Your task to perform on an android device: turn on showing notifications on the lock screen Image 0: 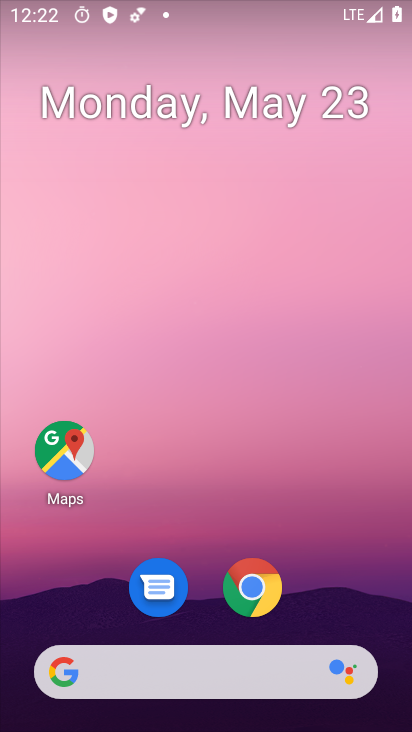
Step 0: drag from (218, 603) to (226, 118)
Your task to perform on an android device: turn on showing notifications on the lock screen Image 1: 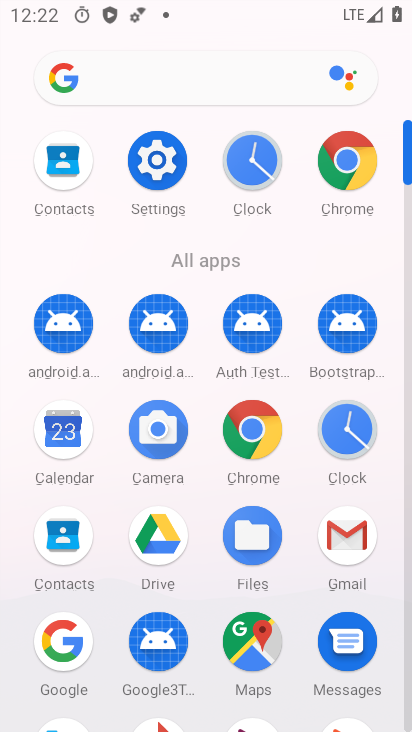
Step 1: click (160, 162)
Your task to perform on an android device: turn on showing notifications on the lock screen Image 2: 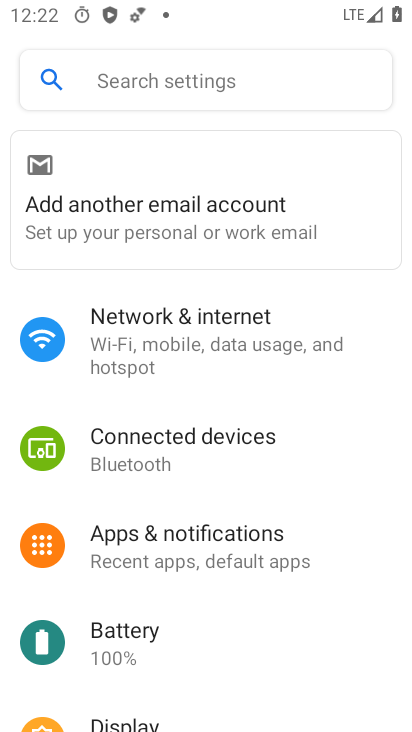
Step 2: click (188, 539)
Your task to perform on an android device: turn on showing notifications on the lock screen Image 3: 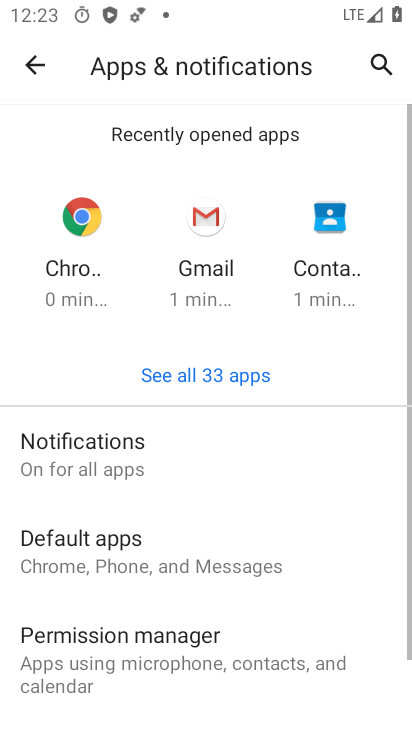
Step 3: click (99, 460)
Your task to perform on an android device: turn on showing notifications on the lock screen Image 4: 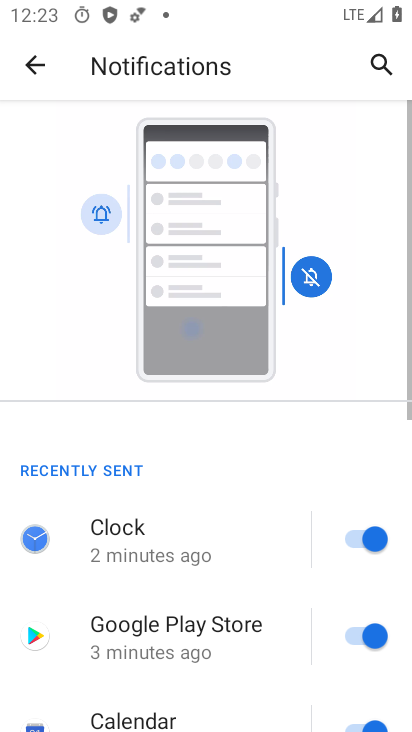
Step 4: drag from (148, 574) to (238, 29)
Your task to perform on an android device: turn on showing notifications on the lock screen Image 5: 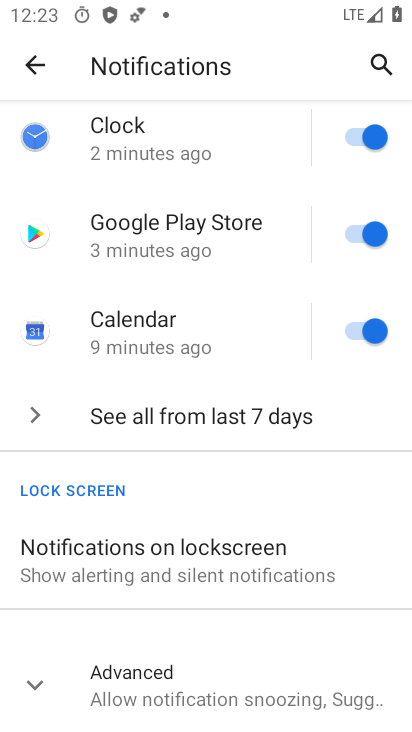
Step 5: click (160, 544)
Your task to perform on an android device: turn on showing notifications on the lock screen Image 6: 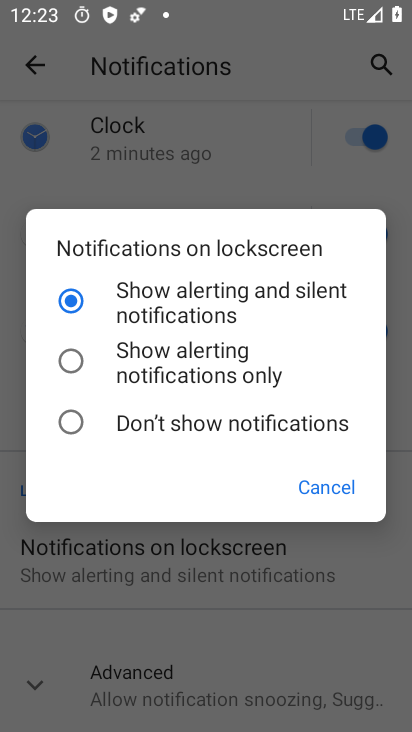
Step 6: click (76, 292)
Your task to perform on an android device: turn on showing notifications on the lock screen Image 7: 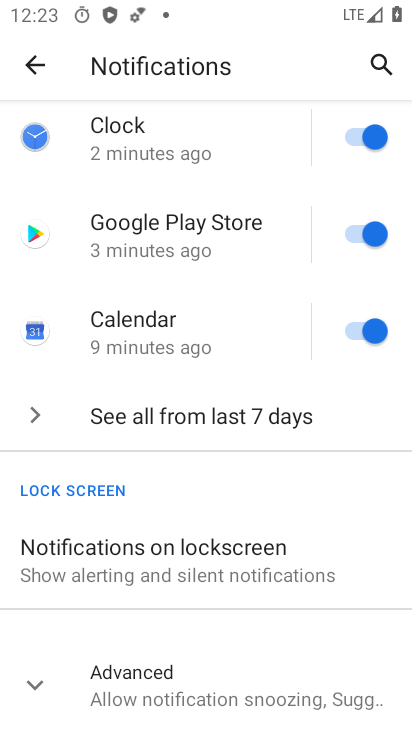
Step 7: task complete